Your task to perform on an android device: clear all cookies in the chrome app Image 0: 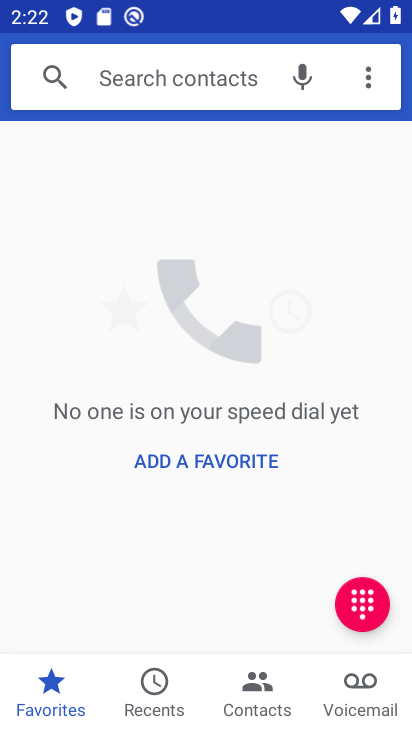
Step 0: press home button
Your task to perform on an android device: clear all cookies in the chrome app Image 1: 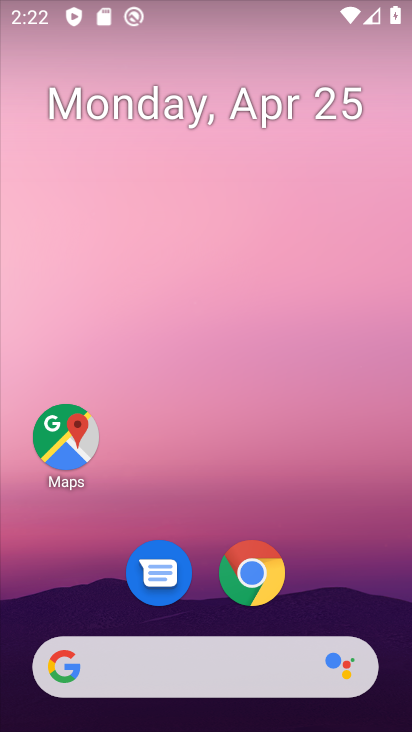
Step 1: drag from (335, 572) to (385, 15)
Your task to perform on an android device: clear all cookies in the chrome app Image 2: 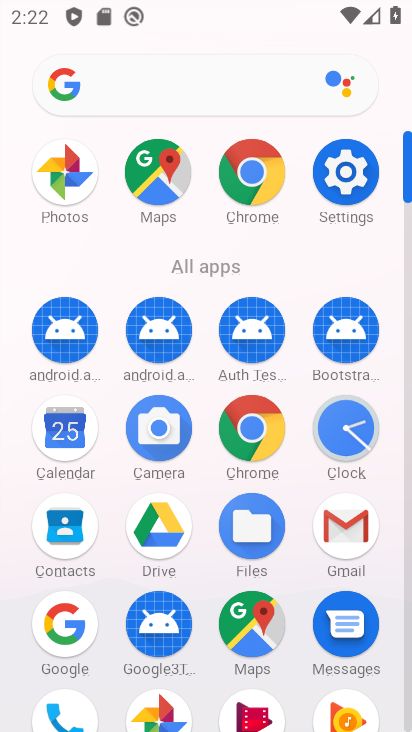
Step 2: click (251, 173)
Your task to perform on an android device: clear all cookies in the chrome app Image 3: 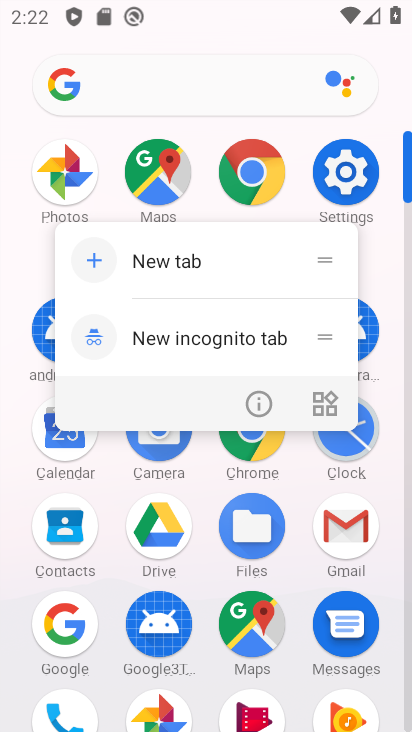
Step 3: click (251, 173)
Your task to perform on an android device: clear all cookies in the chrome app Image 4: 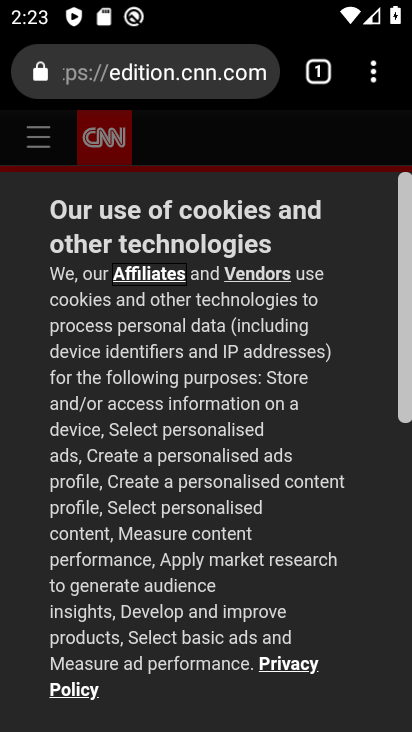
Step 4: drag from (371, 83) to (119, 433)
Your task to perform on an android device: clear all cookies in the chrome app Image 5: 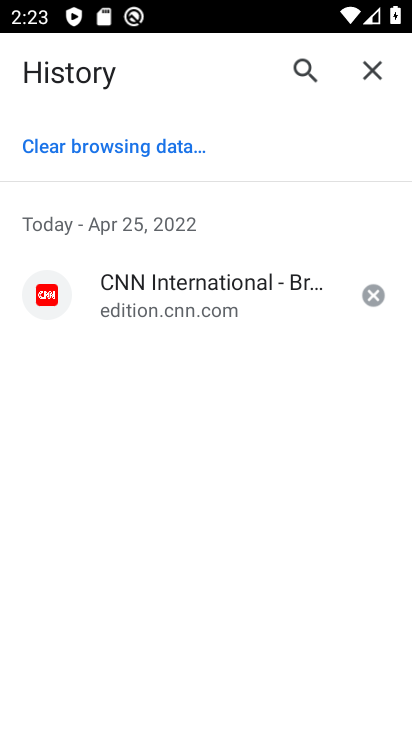
Step 5: click (147, 141)
Your task to perform on an android device: clear all cookies in the chrome app Image 6: 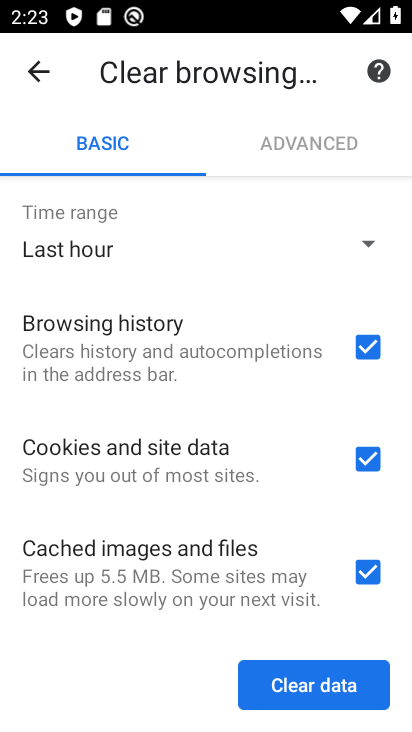
Step 6: click (368, 342)
Your task to perform on an android device: clear all cookies in the chrome app Image 7: 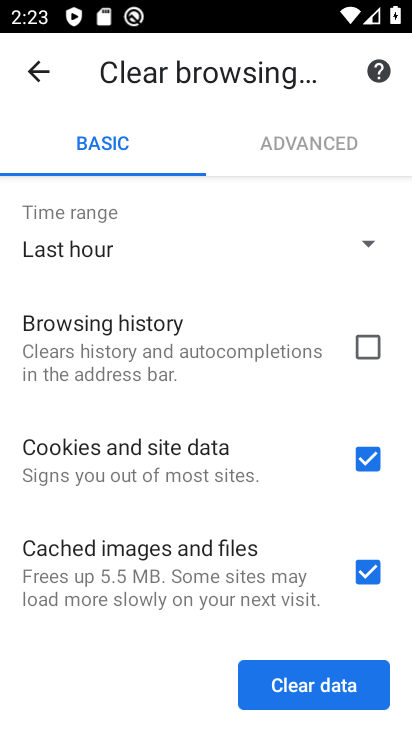
Step 7: click (365, 578)
Your task to perform on an android device: clear all cookies in the chrome app Image 8: 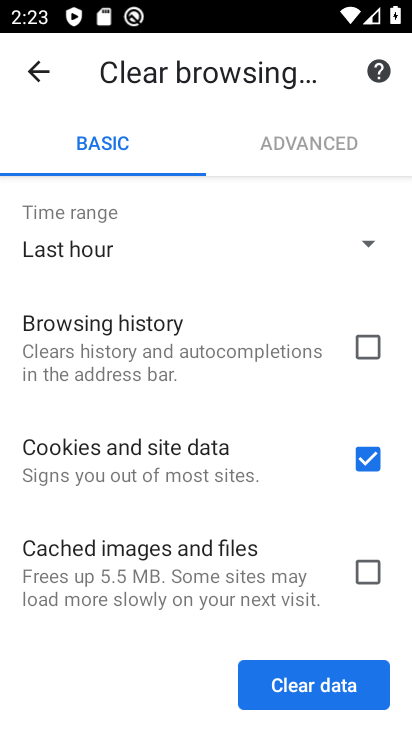
Step 8: drag from (245, 626) to (227, 237)
Your task to perform on an android device: clear all cookies in the chrome app Image 9: 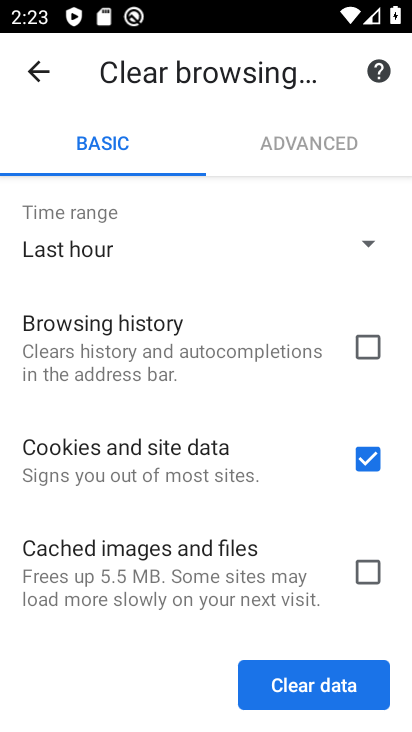
Step 9: click (305, 685)
Your task to perform on an android device: clear all cookies in the chrome app Image 10: 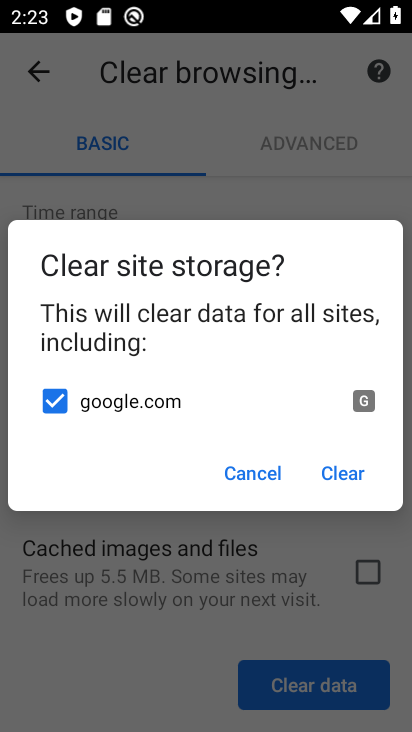
Step 10: click (334, 469)
Your task to perform on an android device: clear all cookies in the chrome app Image 11: 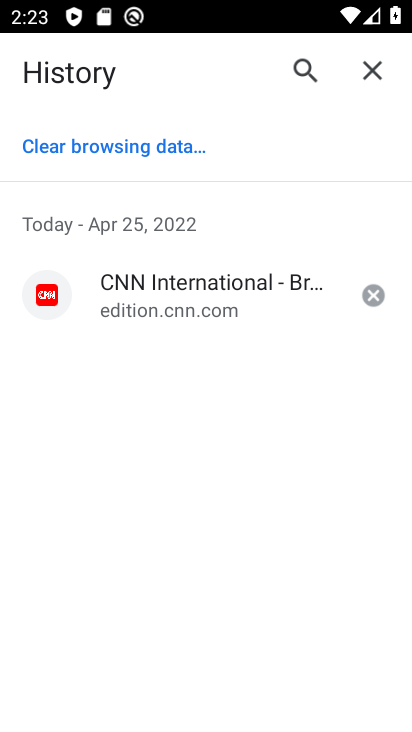
Step 11: task complete